Your task to perform on an android device: Open Yahoo.com Image 0: 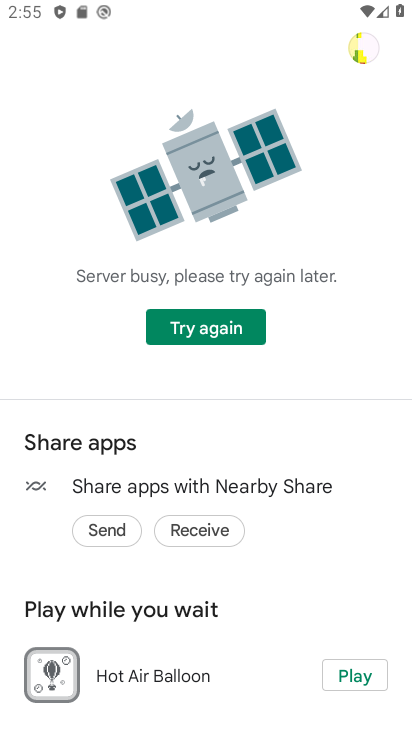
Step 0: press home button
Your task to perform on an android device: Open Yahoo.com Image 1: 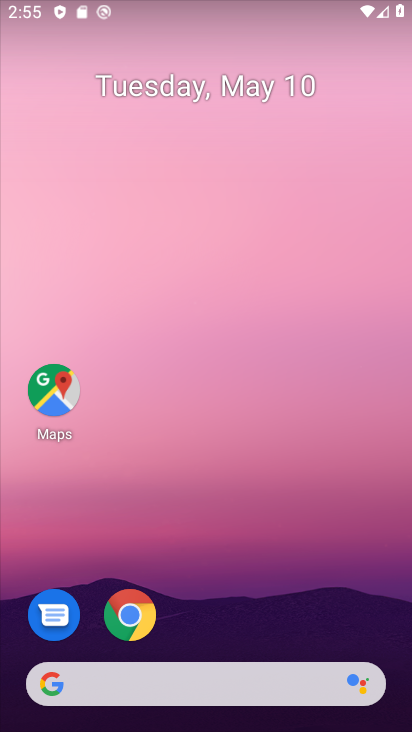
Step 1: click (123, 614)
Your task to perform on an android device: Open Yahoo.com Image 2: 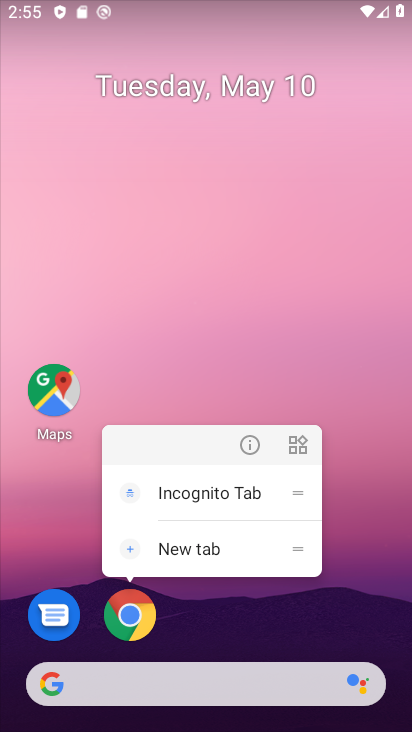
Step 2: click (127, 621)
Your task to perform on an android device: Open Yahoo.com Image 3: 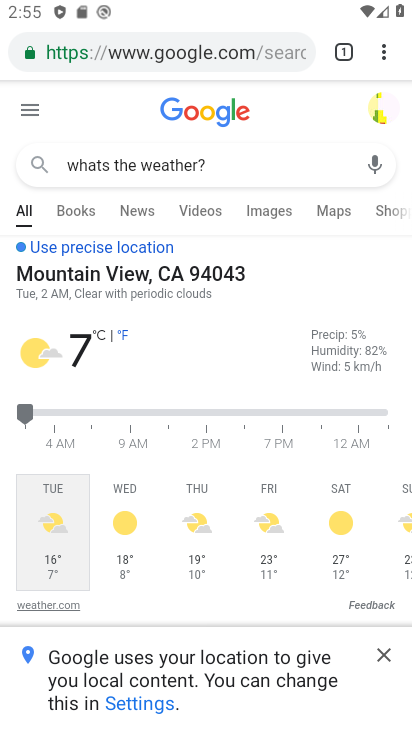
Step 3: click (202, 57)
Your task to perform on an android device: Open Yahoo.com Image 4: 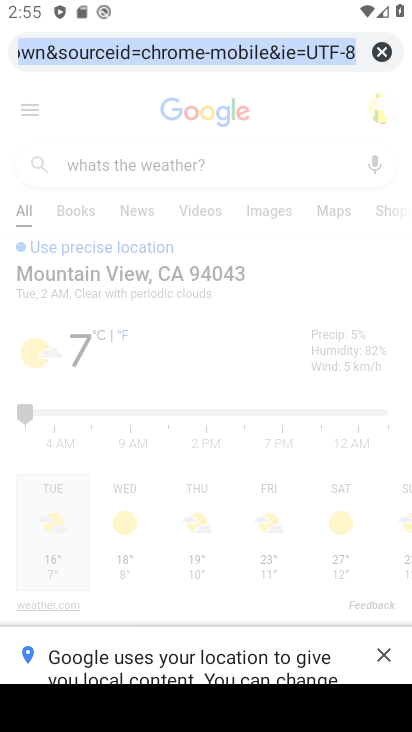
Step 4: type "yahoo.com"
Your task to perform on an android device: Open Yahoo.com Image 5: 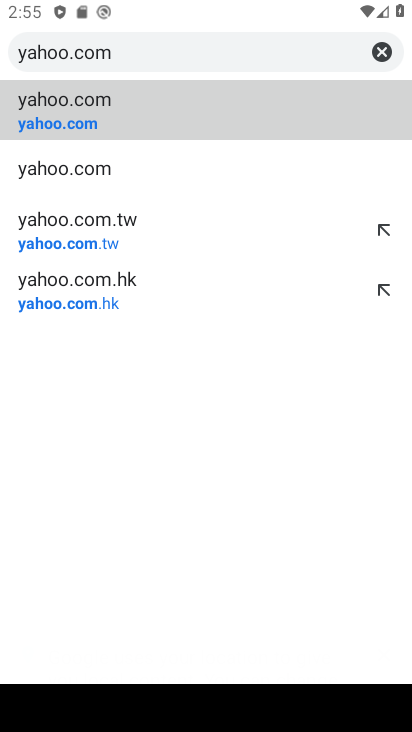
Step 5: click (129, 121)
Your task to perform on an android device: Open Yahoo.com Image 6: 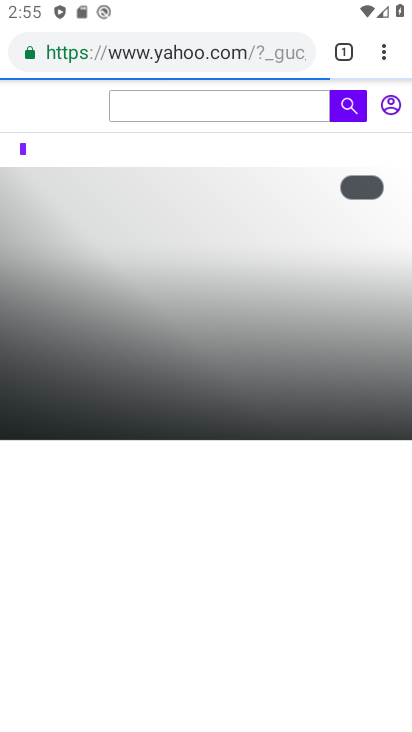
Step 6: task complete